Your task to perform on an android device: turn off translation in the chrome app Image 0: 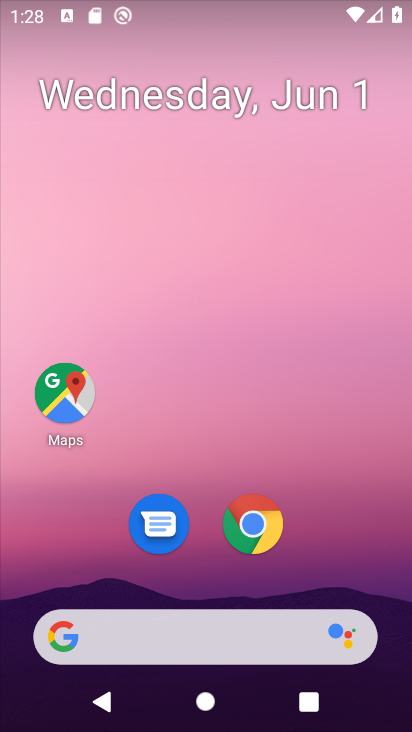
Step 0: click (246, 529)
Your task to perform on an android device: turn off translation in the chrome app Image 1: 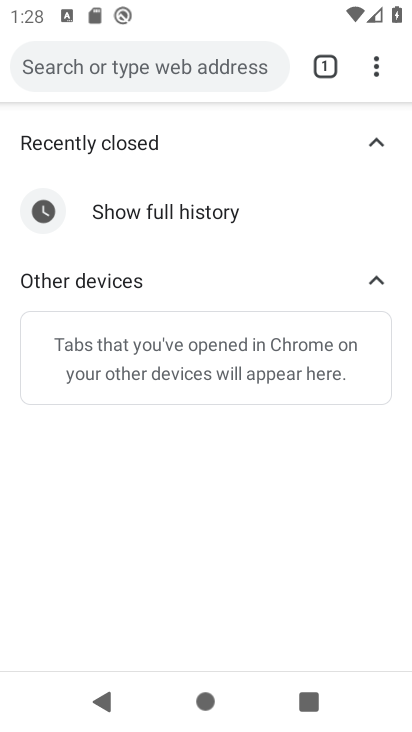
Step 1: click (374, 62)
Your task to perform on an android device: turn off translation in the chrome app Image 2: 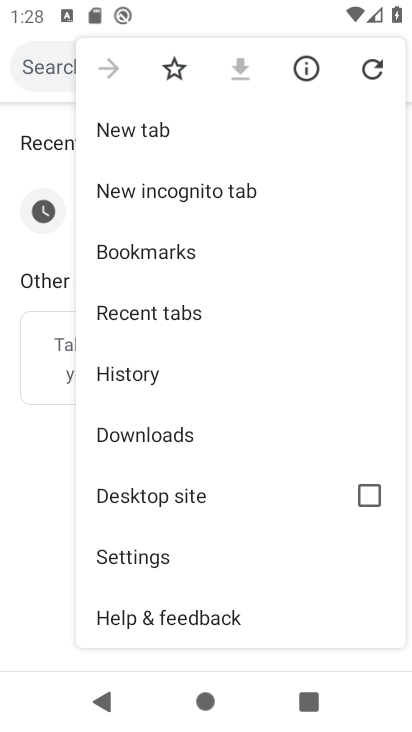
Step 2: click (173, 551)
Your task to perform on an android device: turn off translation in the chrome app Image 3: 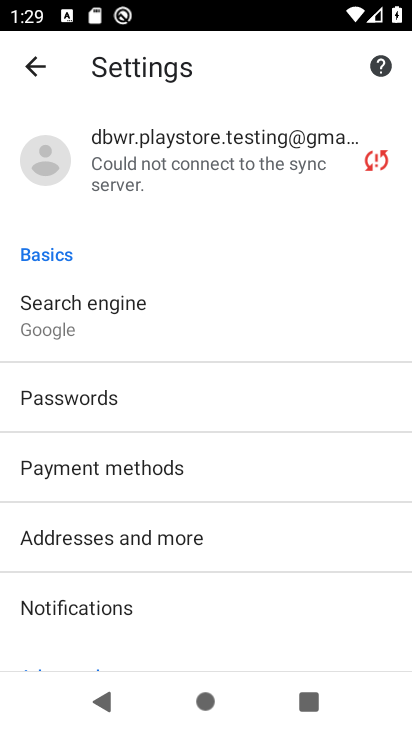
Step 3: drag from (235, 568) to (245, 143)
Your task to perform on an android device: turn off translation in the chrome app Image 4: 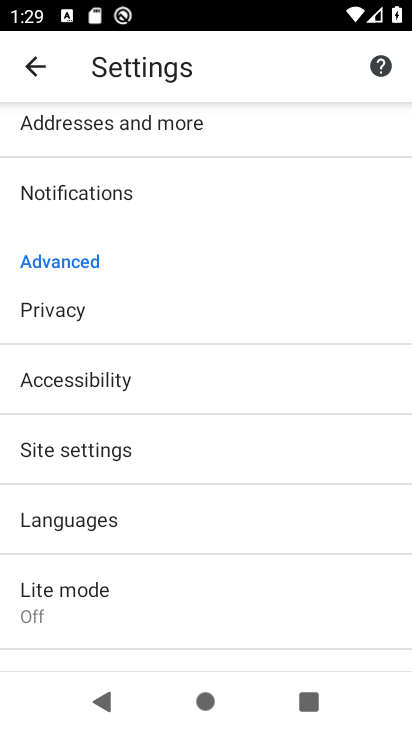
Step 4: click (248, 509)
Your task to perform on an android device: turn off translation in the chrome app Image 5: 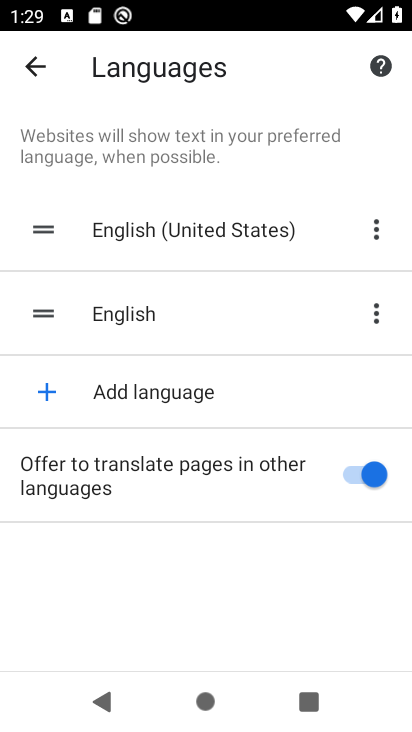
Step 5: click (366, 468)
Your task to perform on an android device: turn off translation in the chrome app Image 6: 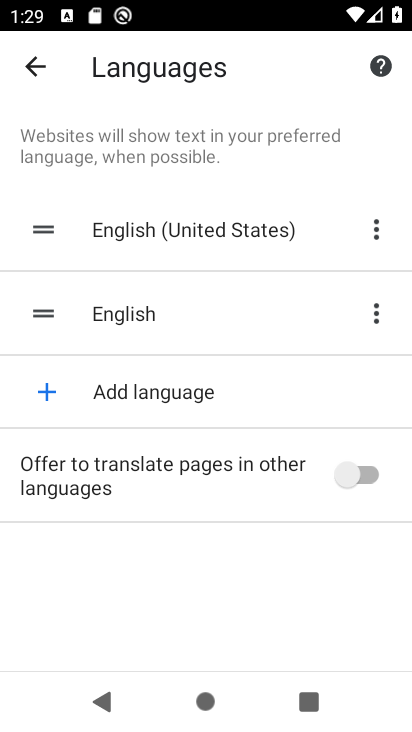
Step 6: task complete